Your task to perform on an android device: Open the map Image 0: 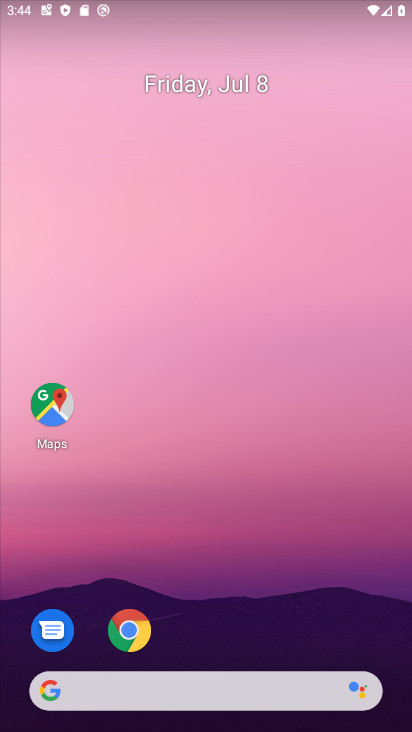
Step 0: click (52, 398)
Your task to perform on an android device: Open the map Image 1: 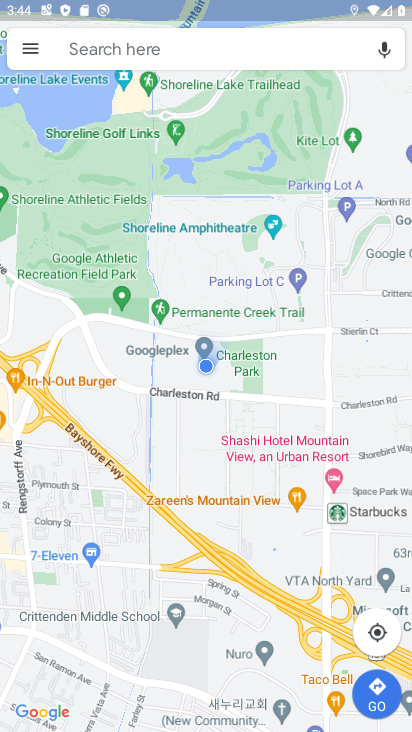
Step 1: task complete